Your task to perform on an android device: clear all cookies in the chrome app Image 0: 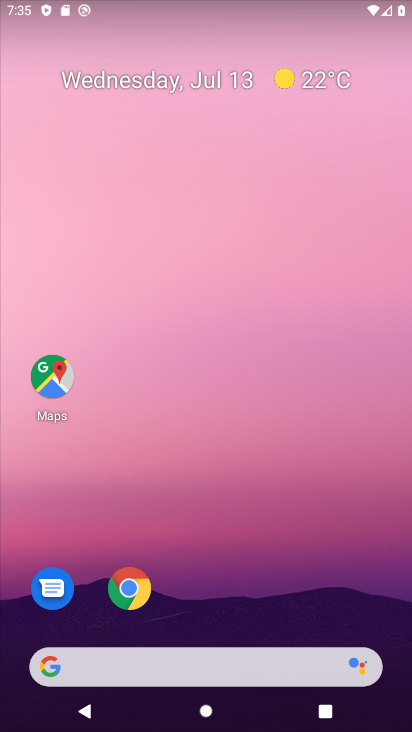
Step 0: drag from (237, 671) to (243, 298)
Your task to perform on an android device: clear all cookies in the chrome app Image 1: 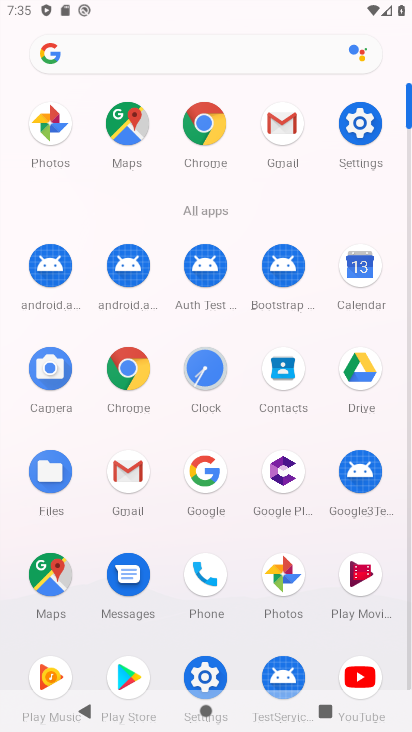
Step 1: click (187, 123)
Your task to perform on an android device: clear all cookies in the chrome app Image 2: 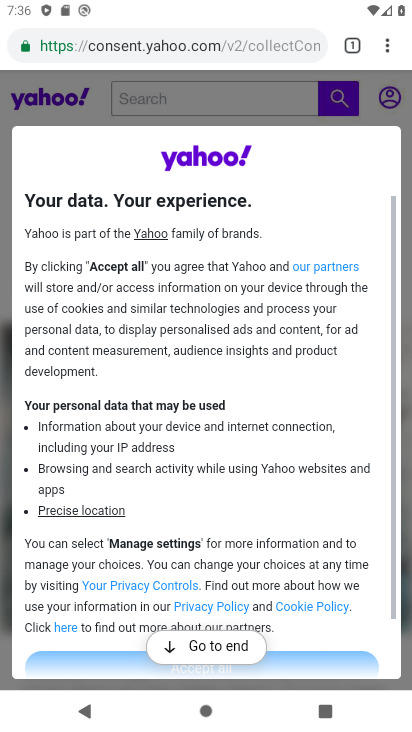
Step 2: click (389, 34)
Your task to perform on an android device: clear all cookies in the chrome app Image 3: 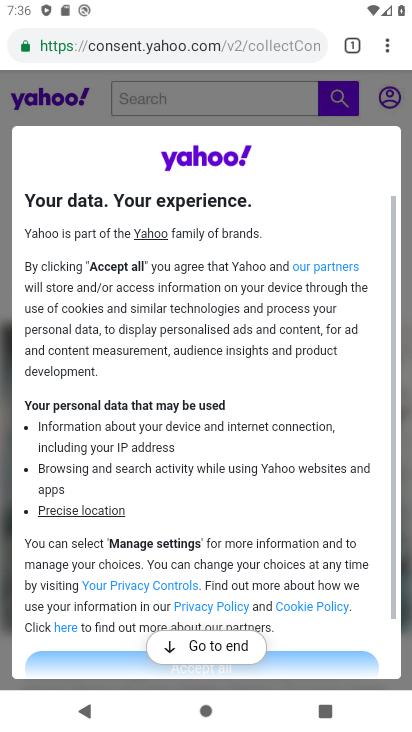
Step 3: click (394, 45)
Your task to perform on an android device: clear all cookies in the chrome app Image 4: 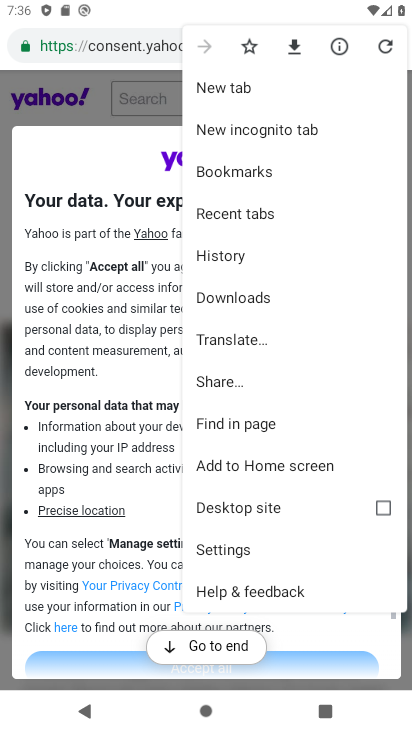
Step 4: click (255, 544)
Your task to perform on an android device: clear all cookies in the chrome app Image 5: 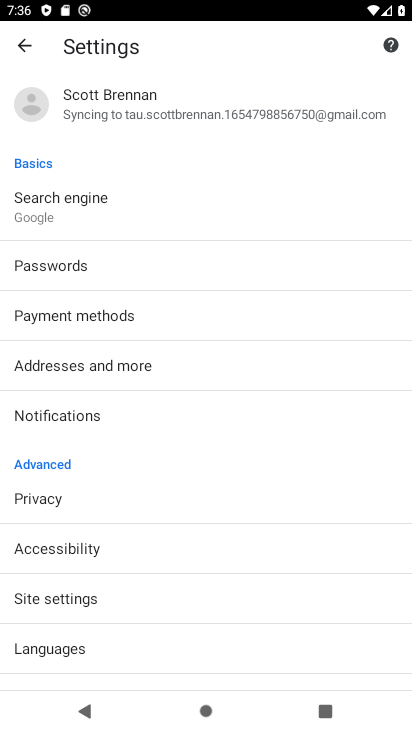
Step 5: click (85, 492)
Your task to perform on an android device: clear all cookies in the chrome app Image 6: 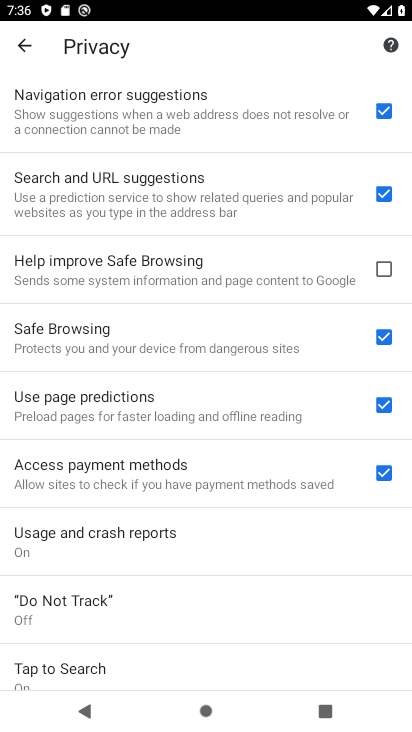
Step 6: drag from (176, 613) to (194, 122)
Your task to perform on an android device: clear all cookies in the chrome app Image 7: 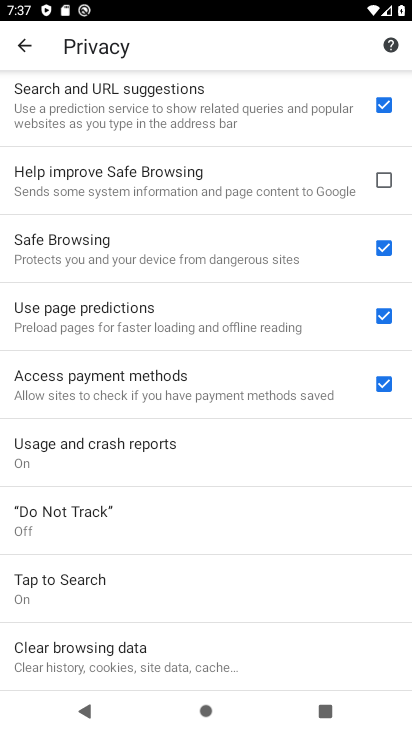
Step 7: click (162, 649)
Your task to perform on an android device: clear all cookies in the chrome app Image 8: 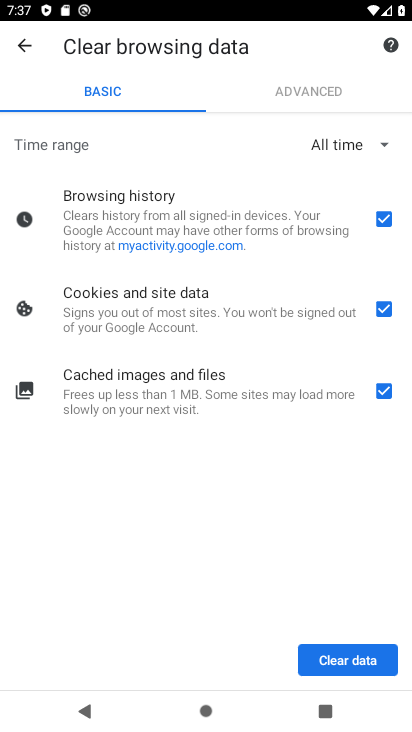
Step 8: click (378, 650)
Your task to perform on an android device: clear all cookies in the chrome app Image 9: 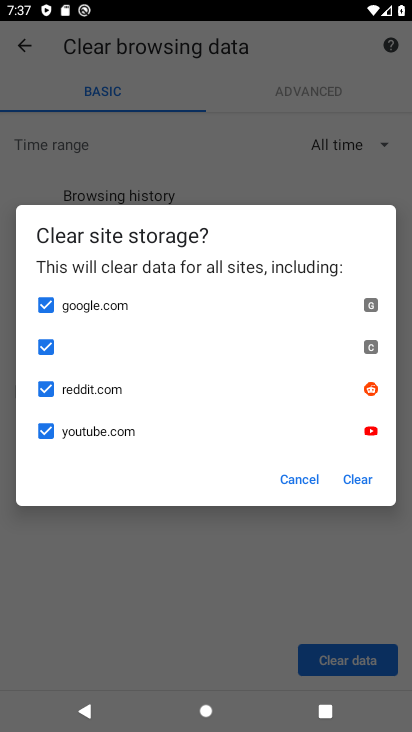
Step 9: click (358, 474)
Your task to perform on an android device: clear all cookies in the chrome app Image 10: 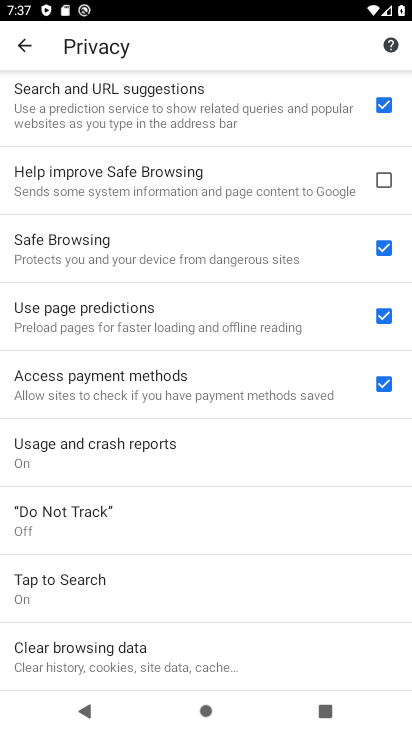
Step 10: task complete